Your task to perform on an android device: find photos in the google photos app Image 0: 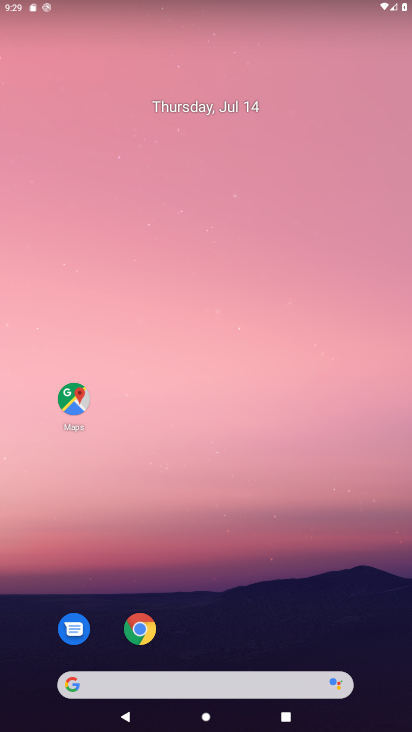
Step 0: drag from (296, 604) to (279, 160)
Your task to perform on an android device: find photos in the google photos app Image 1: 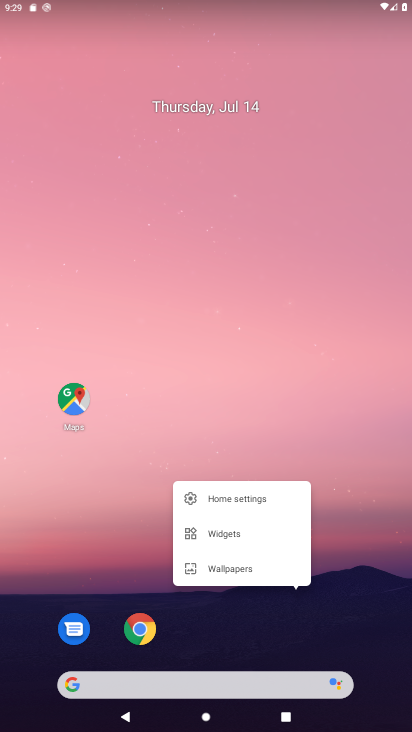
Step 1: click (329, 539)
Your task to perform on an android device: find photos in the google photos app Image 2: 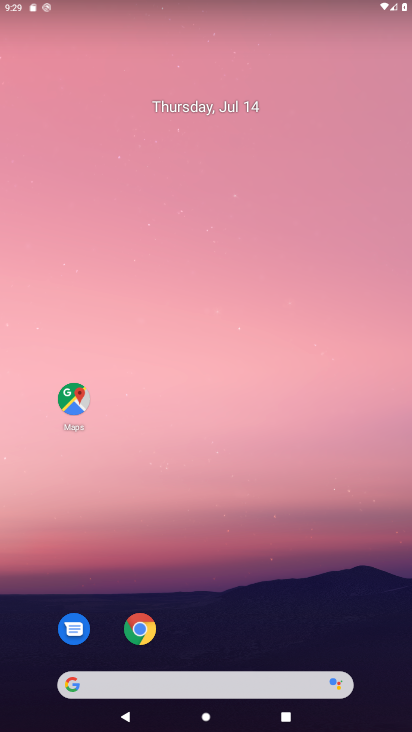
Step 2: drag from (307, 637) to (292, 98)
Your task to perform on an android device: find photos in the google photos app Image 3: 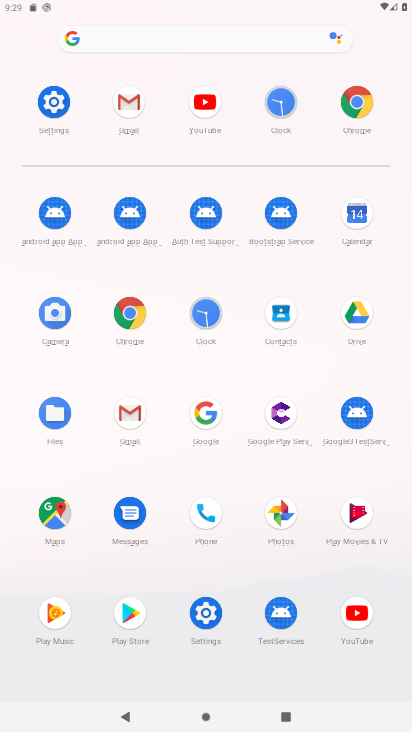
Step 3: click (281, 506)
Your task to perform on an android device: find photos in the google photos app Image 4: 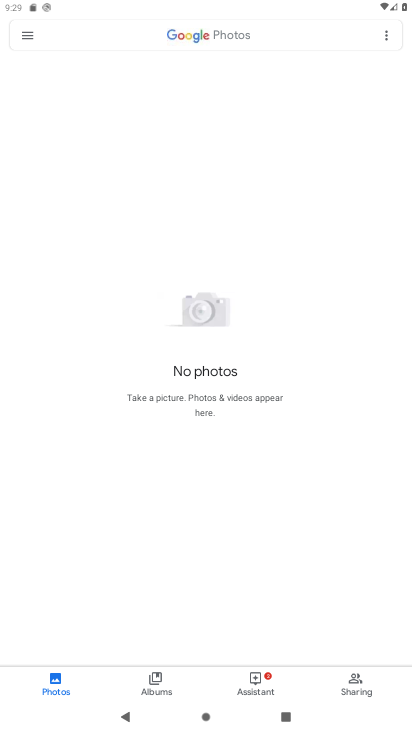
Step 4: task complete